Your task to perform on an android device: Go to internet settings Image 0: 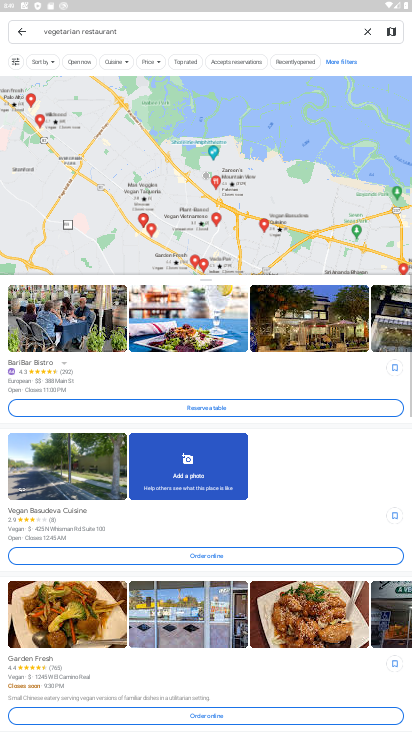
Step 0: press home button
Your task to perform on an android device: Go to internet settings Image 1: 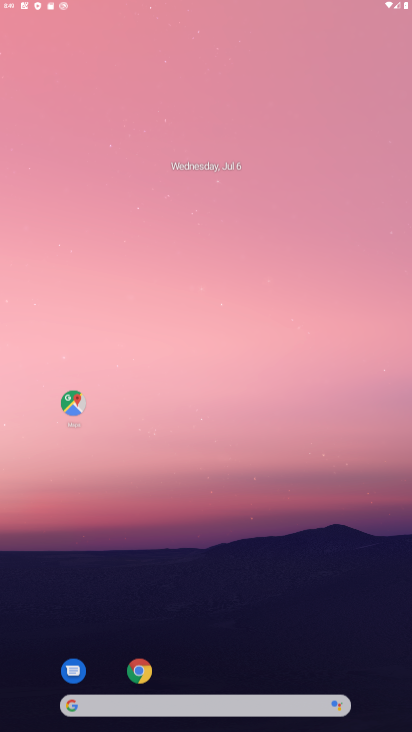
Step 1: drag from (234, 631) to (244, 252)
Your task to perform on an android device: Go to internet settings Image 2: 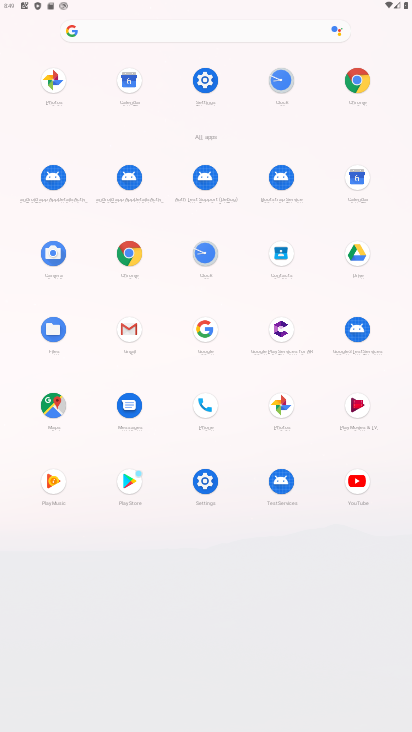
Step 2: click (196, 80)
Your task to perform on an android device: Go to internet settings Image 3: 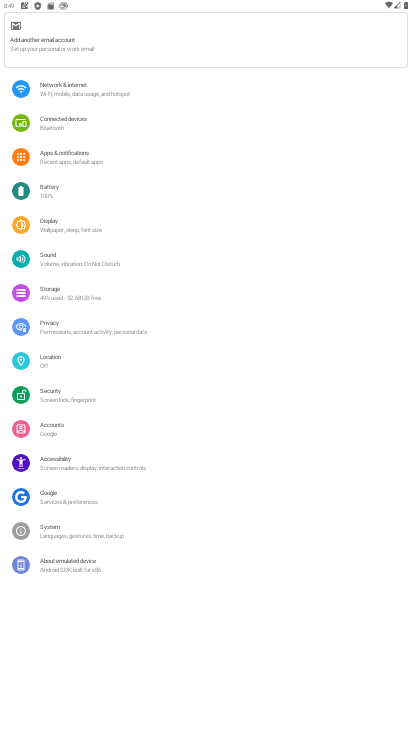
Step 3: click (85, 83)
Your task to perform on an android device: Go to internet settings Image 4: 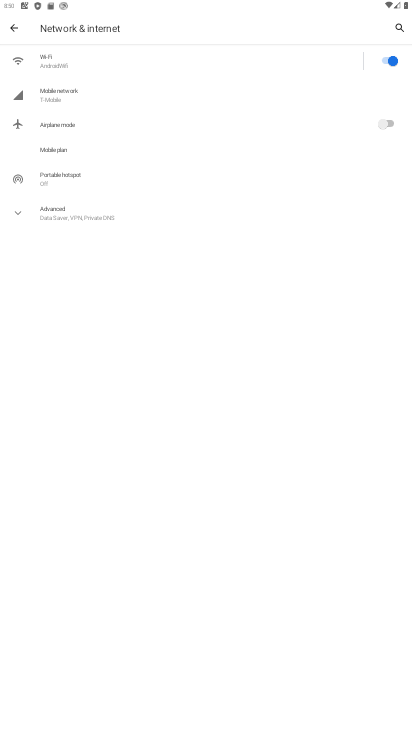
Step 4: task complete